Your task to perform on an android device: Go to Amazon Image 0: 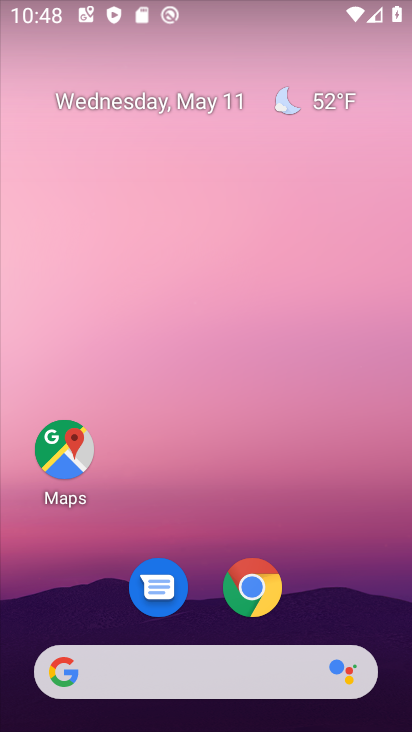
Step 0: drag from (205, 704) to (314, 167)
Your task to perform on an android device: Go to Amazon Image 1: 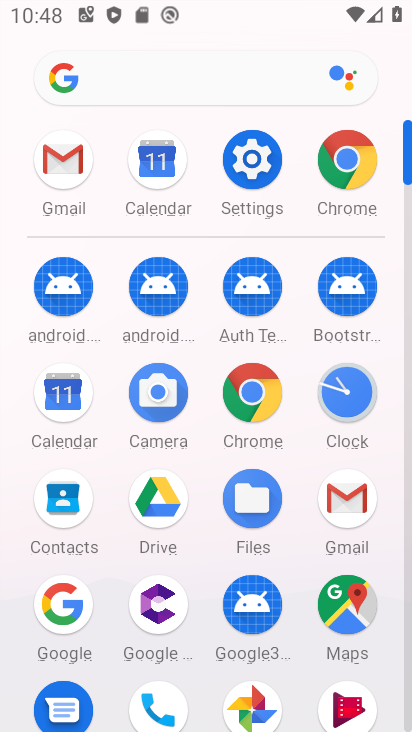
Step 1: click (336, 163)
Your task to perform on an android device: Go to Amazon Image 2: 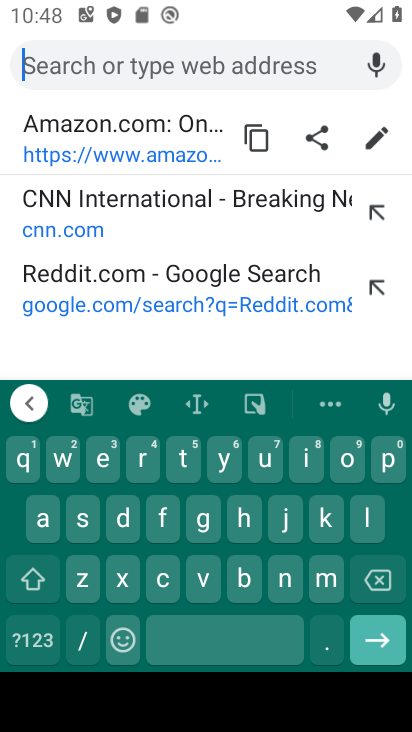
Step 2: click (64, 118)
Your task to perform on an android device: Go to Amazon Image 3: 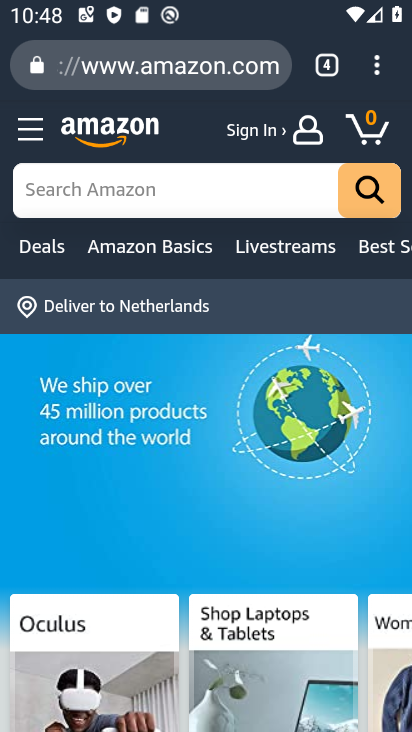
Step 3: task complete